Your task to perform on an android device: delete a single message in the gmail app Image 0: 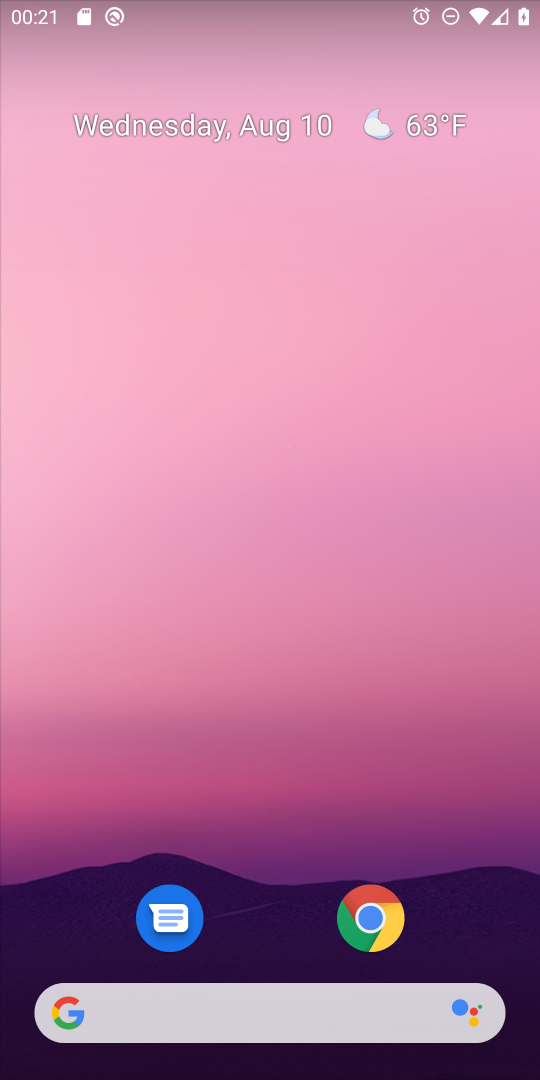
Step 0: drag from (269, 864) to (334, 180)
Your task to perform on an android device: delete a single message in the gmail app Image 1: 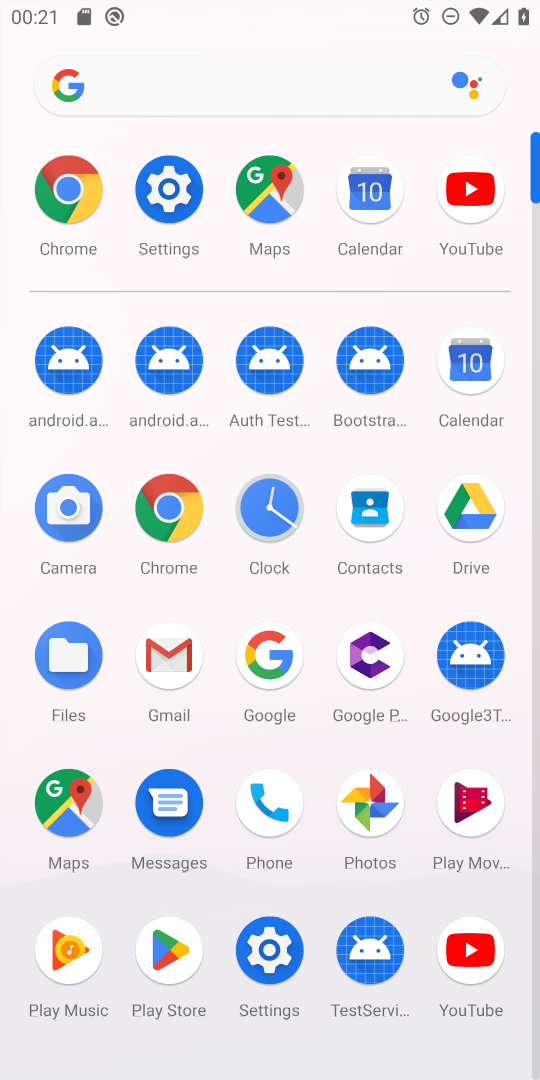
Step 1: click (171, 662)
Your task to perform on an android device: delete a single message in the gmail app Image 2: 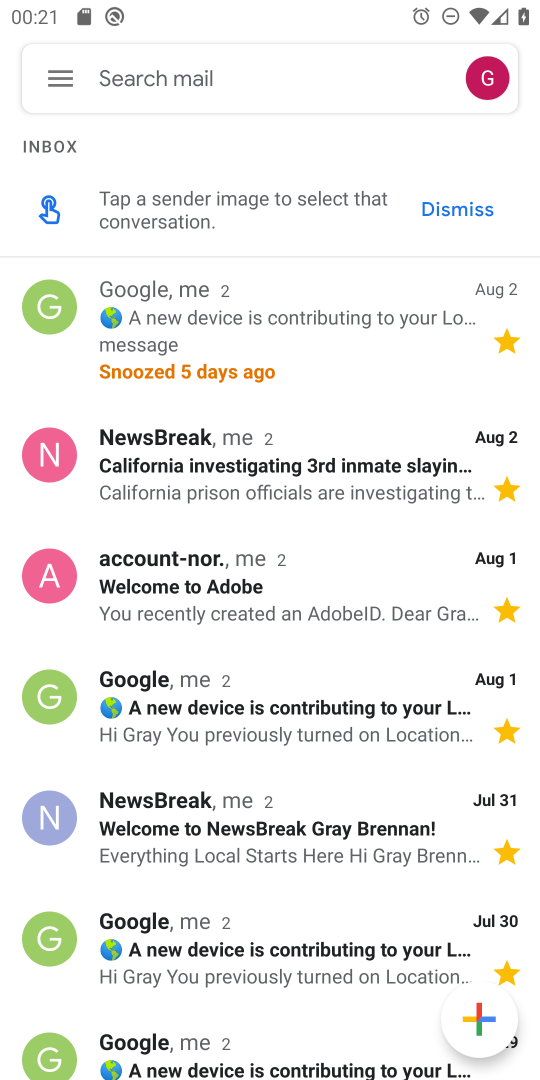
Step 2: drag from (297, 485) to (301, 392)
Your task to perform on an android device: delete a single message in the gmail app Image 3: 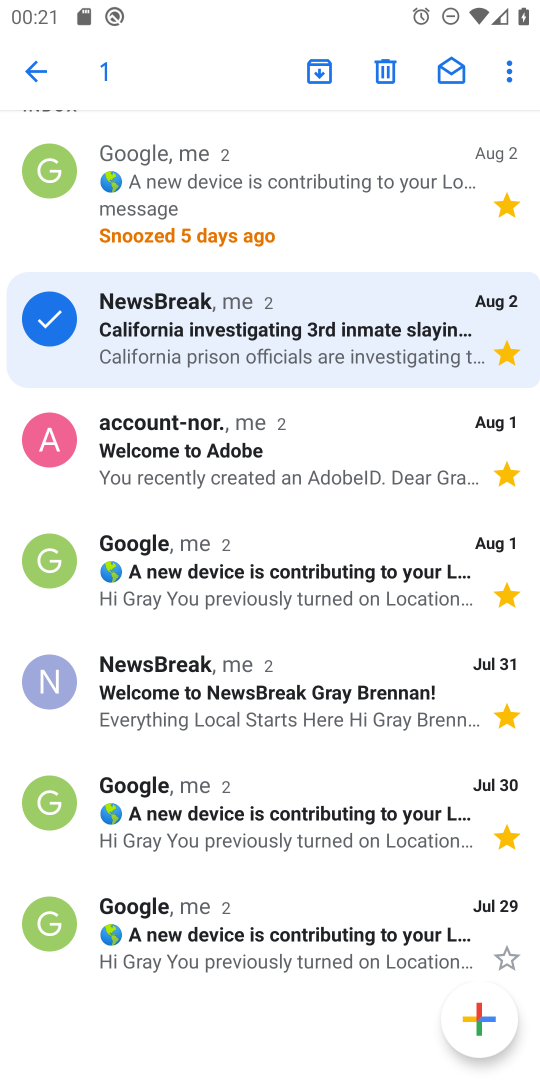
Step 3: click (396, 56)
Your task to perform on an android device: delete a single message in the gmail app Image 4: 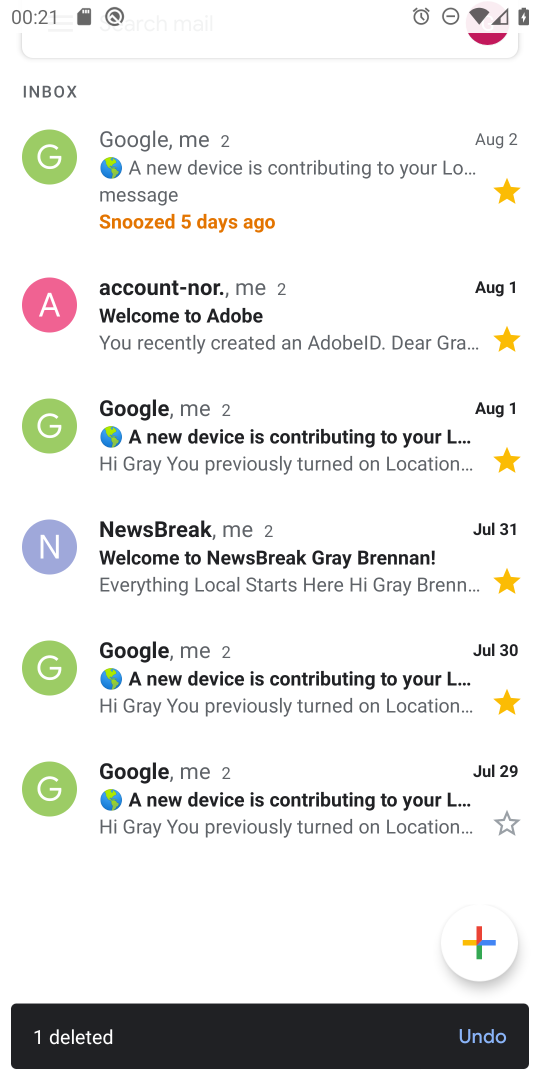
Step 4: task complete